Your task to perform on an android device: Open my contact list Image 0: 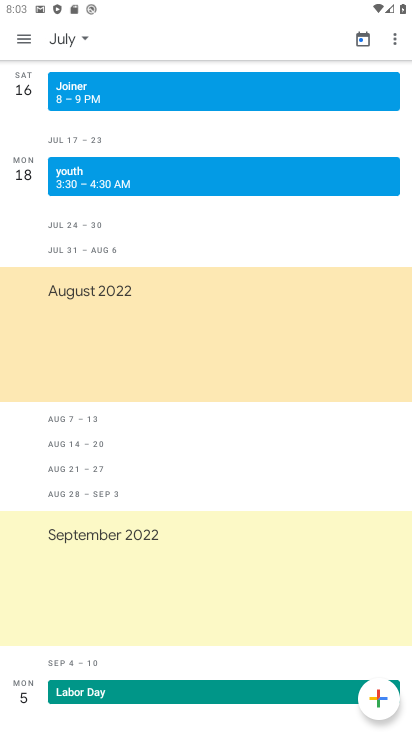
Step 0: press home button
Your task to perform on an android device: Open my contact list Image 1: 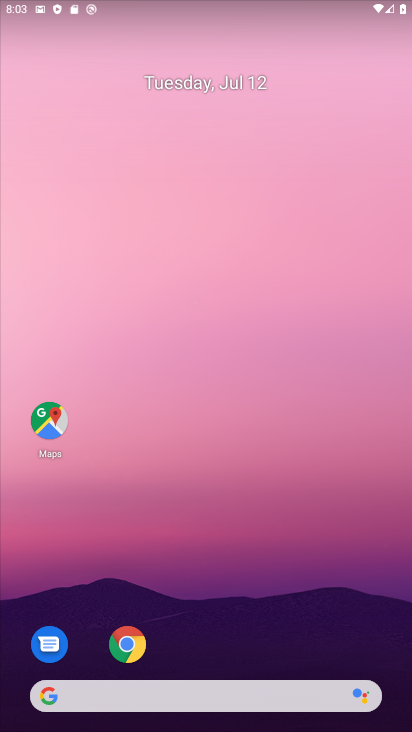
Step 1: drag from (229, 701) to (277, 106)
Your task to perform on an android device: Open my contact list Image 2: 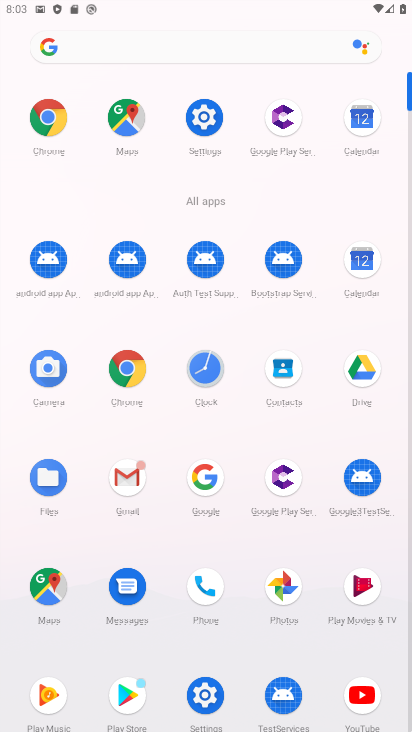
Step 2: click (283, 370)
Your task to perform on an android device: Open my contact list Image 3: 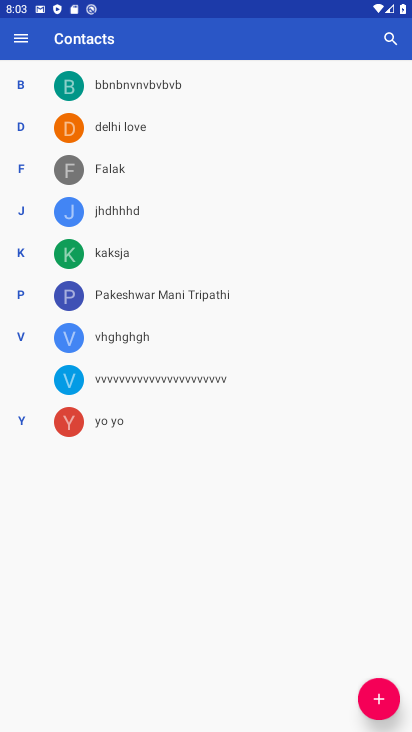
Step 3: task complete